Your task to perform on an android device: Open the web browser Image 0: 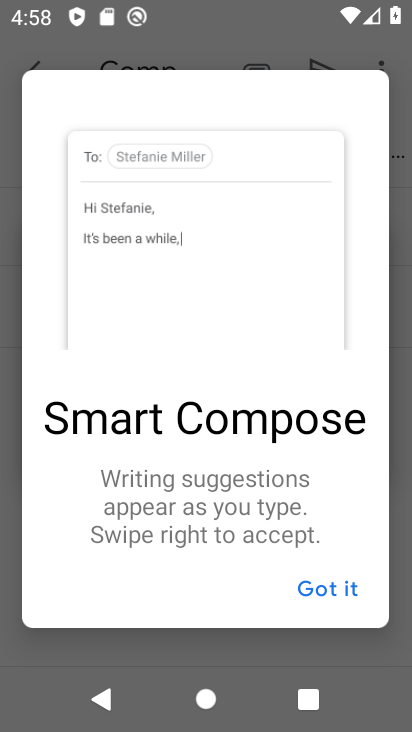
Step 0: press home button
Your task to perform on an android device: Open the web browser Image 1: 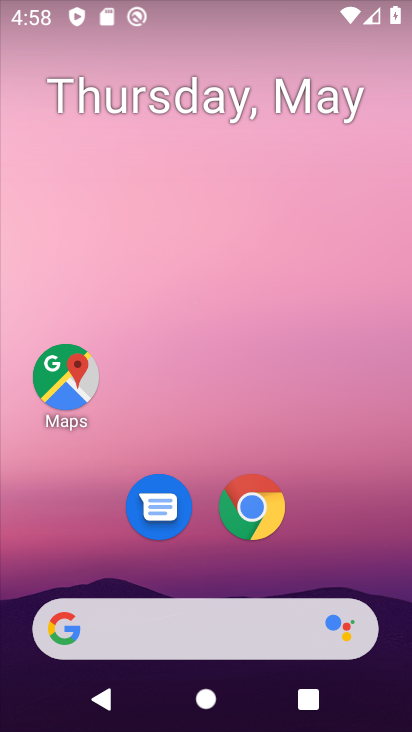
Step 1: click (259, 504)
Your task to perform on an android device: Open the web browser Image 2: 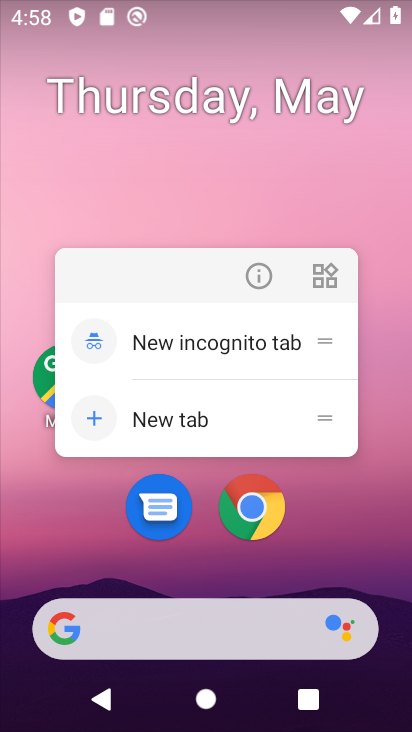
Step 2: click (254, 511)
Your task to perform on an android device: Open the web browser Image 3: 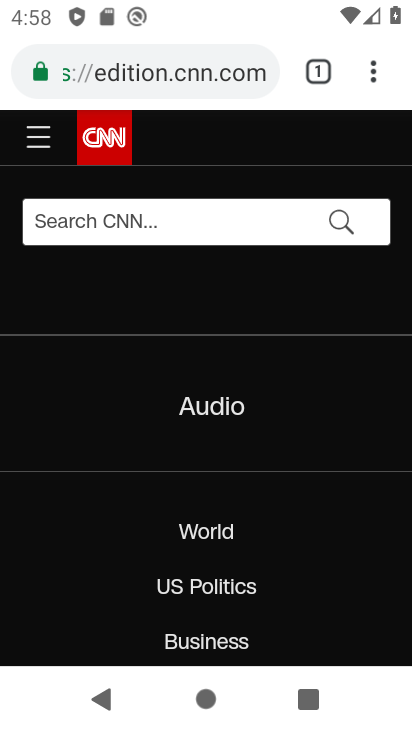
Step 3: task complete